Your task to perform on an android device: Open Amazon Image 0: 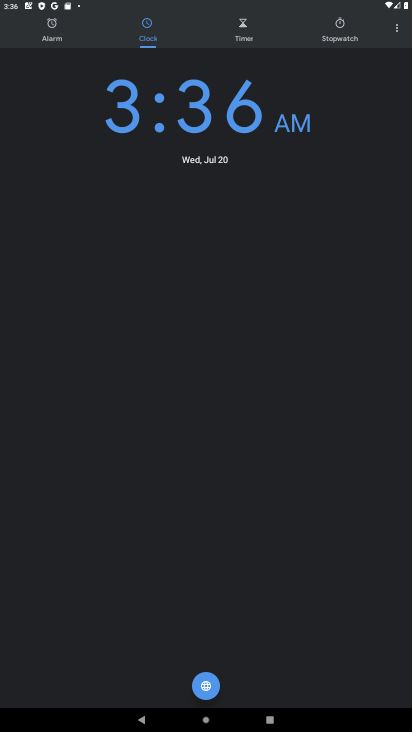
Step 0: press home button
Your task to perform on an android device: Open Amazon Image 1: 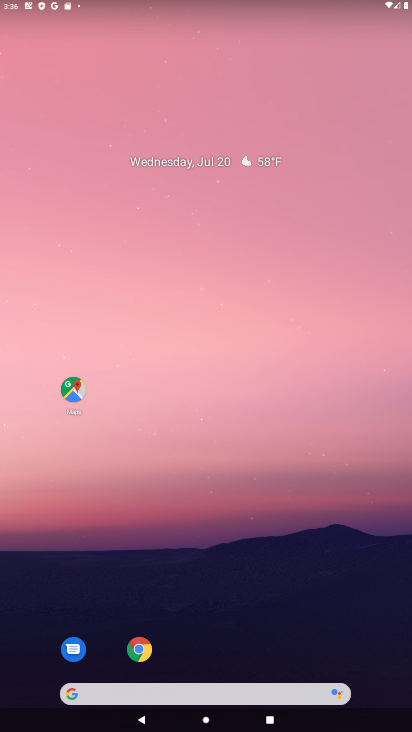
Step 1: drag from (239, 709) to (242, 348)
Your task to perform on an android device: Open Amazon Image 2: 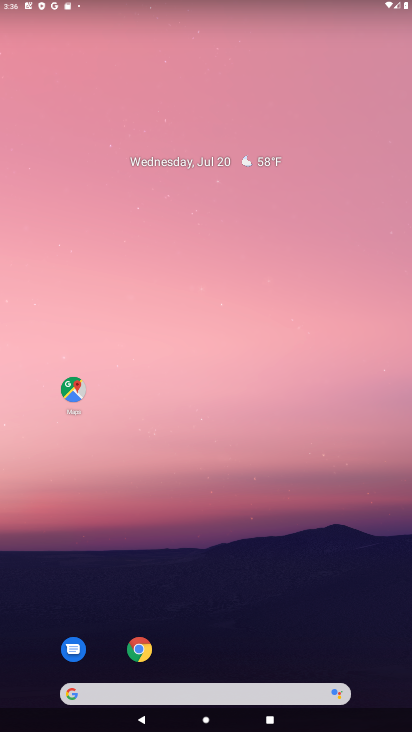
Step 2: click (142, 649)
Your task to perform on an android device: Open Amazon Image 3: 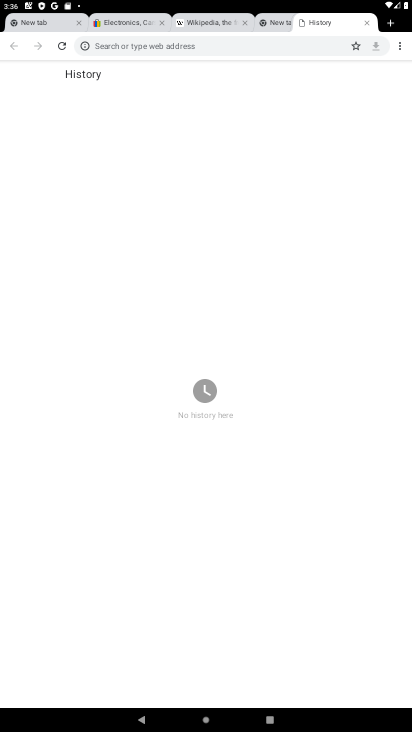
Step 3: click (399, 46)
Your task to perform on an android device: Open Amazon Image 4: 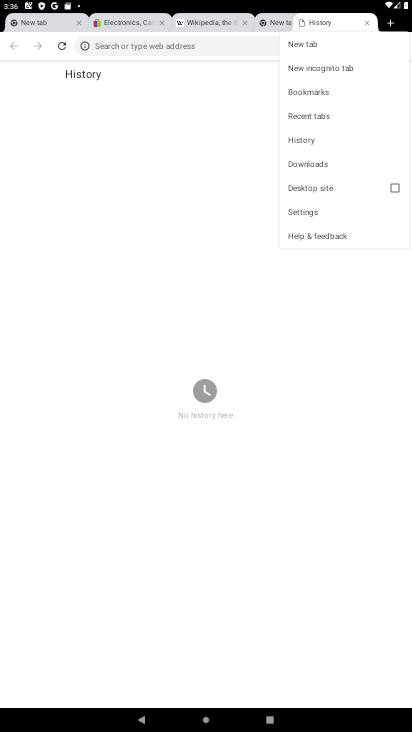
Step 4: click (305, 45)
Your task to perform on an android device: Open Amazon Image 5: 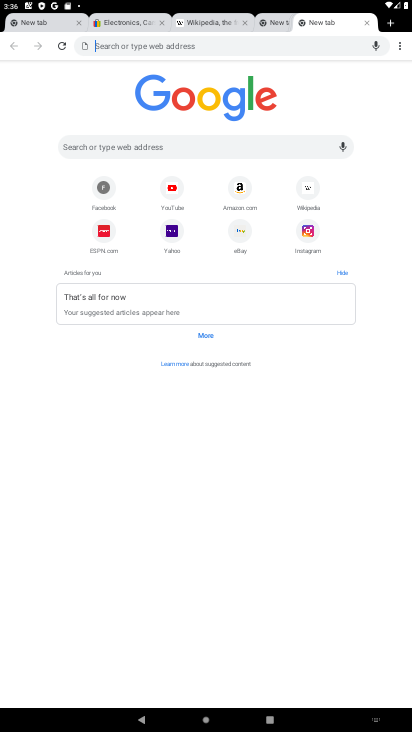
Step 5: click (237, 186)
Your task to perform on an android device: Open Amazon Image 6: 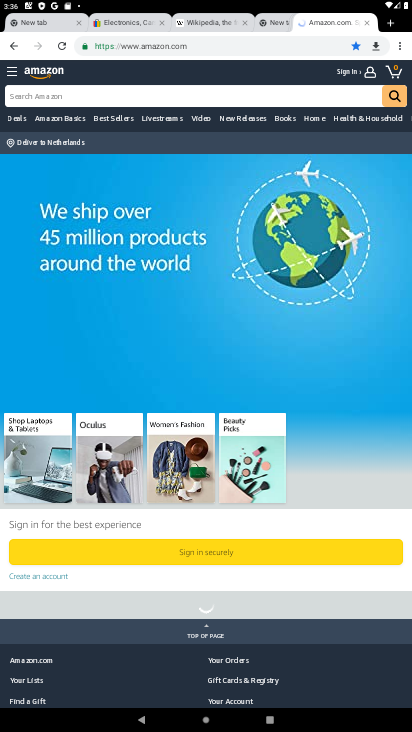
Step 6: task complete